Your task to perform on an android device: Go to calendar. Show me events next week Image 0: 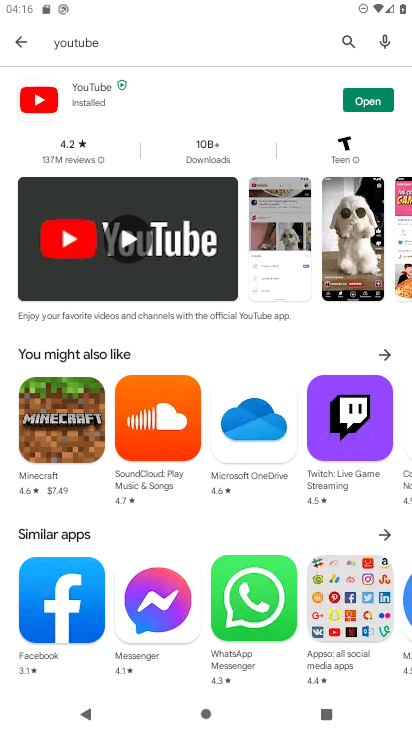
Step 0: press home button
Your task to perform on an android device: Go to calendar. Show me events next week Image 1: 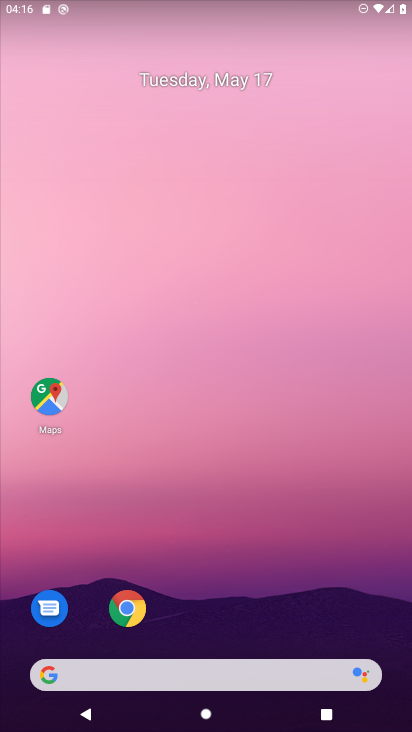
Step 1: drag from (158, 649) to (158, 338)
Your task to perform on an android device: Go to calendar. Show me events next week Image 2: 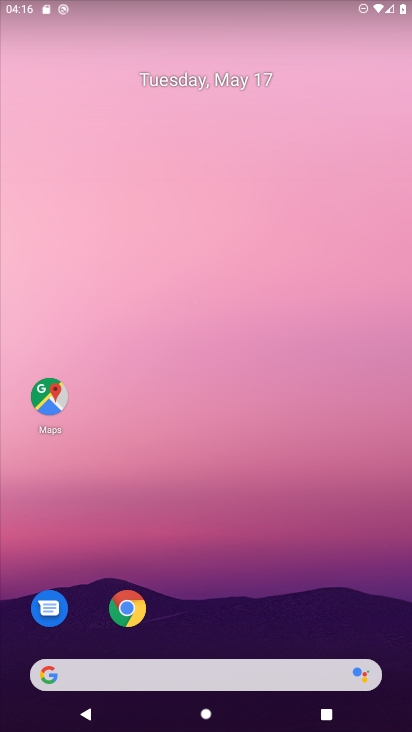
Step 2: drag from (229, 656) to (270, 228)
Your task to perform on an android device: Go to calendar. Show me events next week Image 3: 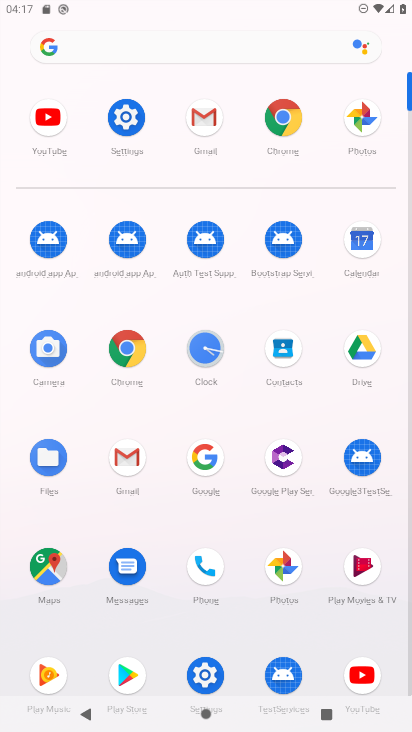
Step 3: click (366, 244)
Your task to perform on an android device: Go to calendar. Show me events next week Image 4: 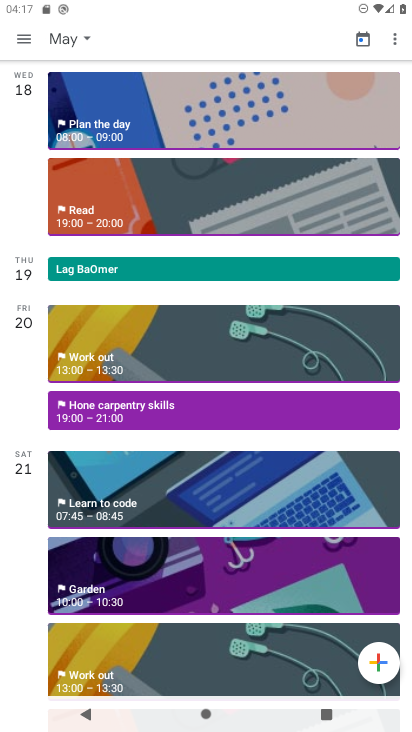
Step 4: click (80, 38)
Your task to perform on an android device: Go to calendar. Show me events next week Image 5: 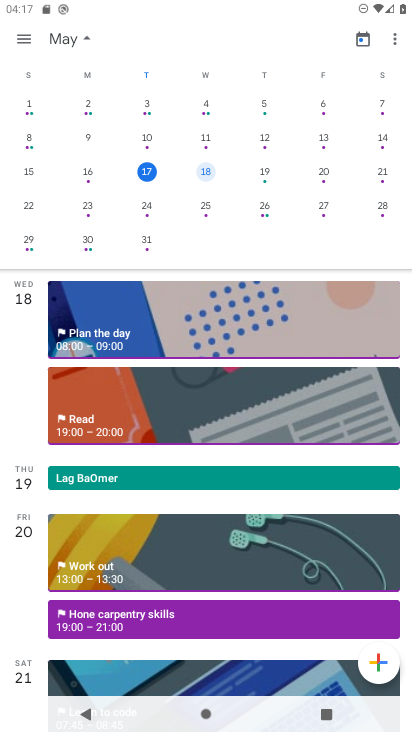
Step 5: click (375, 208)
Your task to perform on an android device: Go to calendar. Show me events next week Image 6: 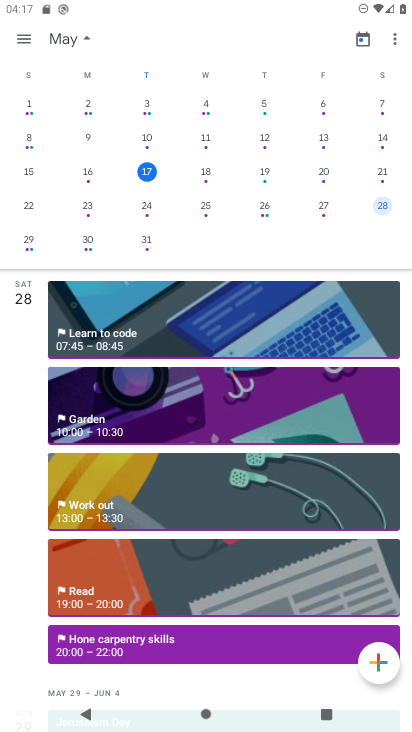
Step 6: task complete